Your task to perform on an android device: Open Youtube and go to the subscriptions tab Image 0: 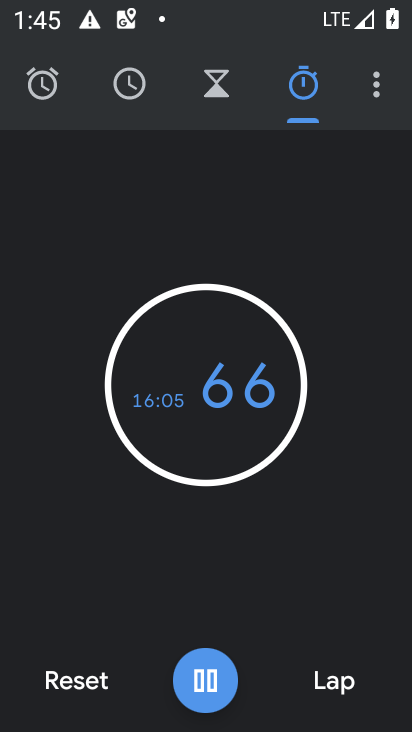
Step 0: press home button
Your task to perform on an android device: Open Youtube and go to the subscriptions tab Image 1: 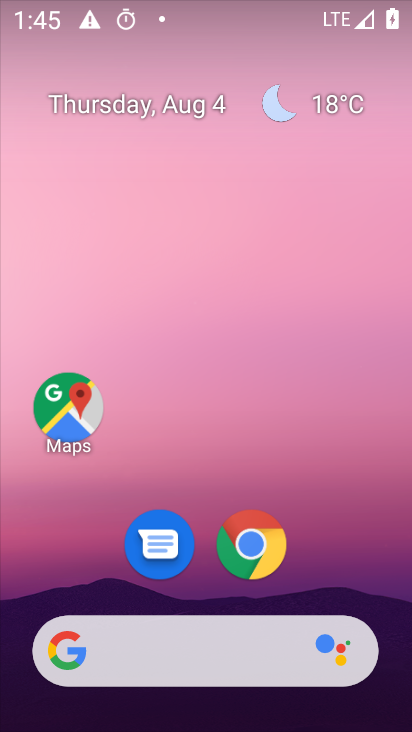
Step 1: drag from (399, 704) to (343, 60)
Your task to perform on an android device: Open Youtube and go to the subscriptions tab Image 2: 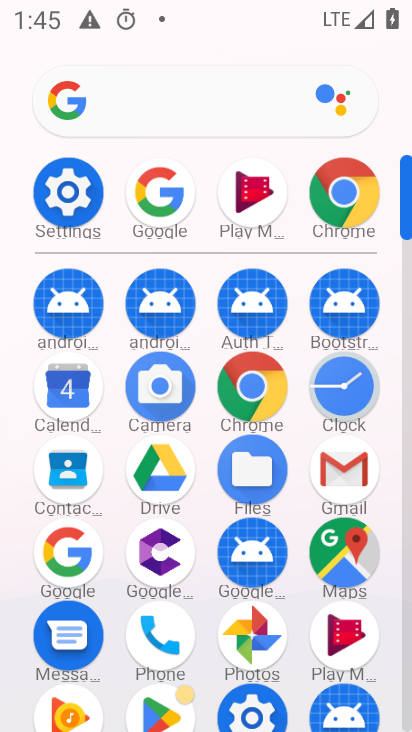
Step 2: drag from (110, 626) to (94, 350)
Your task to perform on an android device: Open Youtube and go to the subscriptions tab Image 3: 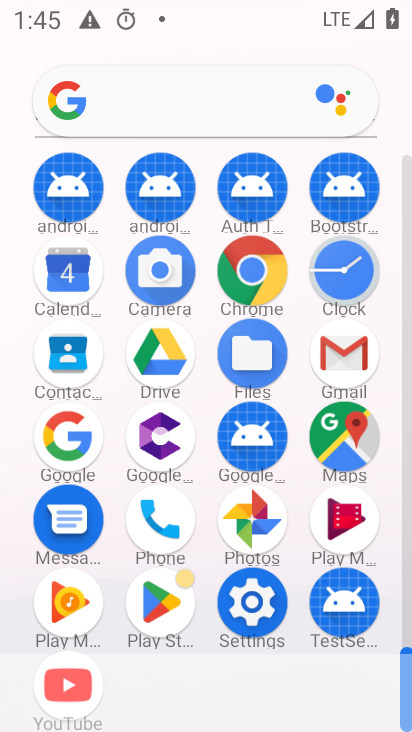
Step 3: click (60, 675)
Your task to perform on an android device: Open Youtube and go to the subscriptions tab Image 4: 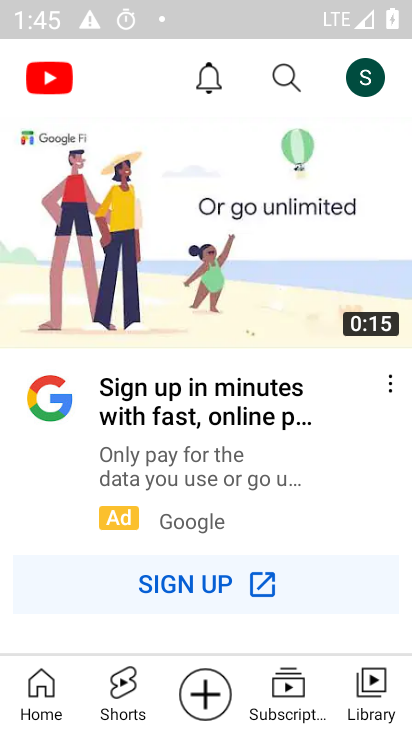
Step 4: click (324, 697)
Your task to perform on an android device: Open Youtube and go to the subscriptions tab Image 5: 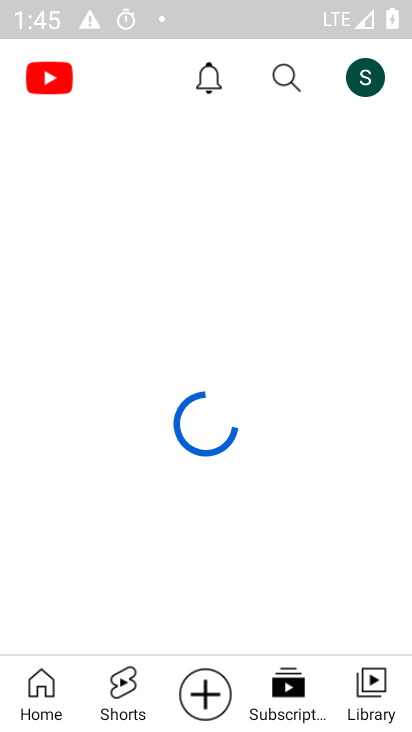
Step 5: click (292, 693)
Your task to perform on an android device: Open Youtube and go to the subscriptions tab Image 6: 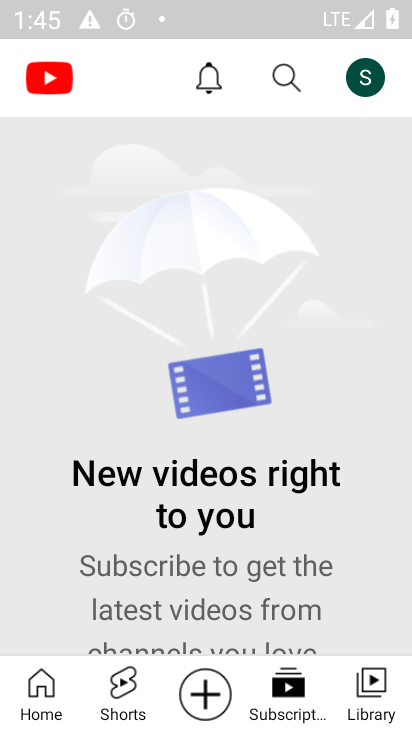
Step 6: task complete